Your task to perform on an android device: toggle notifications settings in the gmail app Image 0: 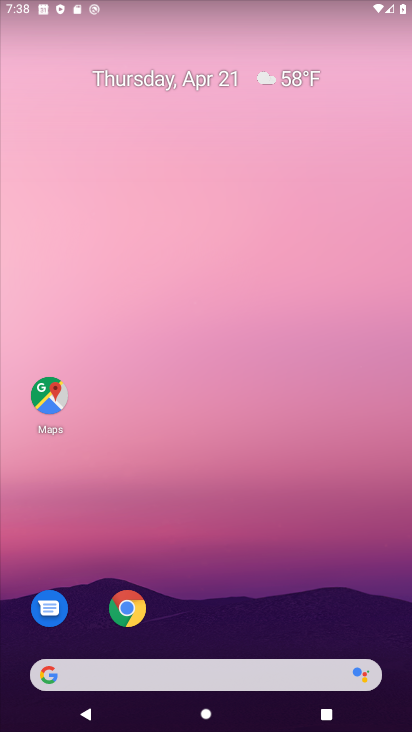
Step 0: drag from (332, 615) to (383, 90)
Your task to perform on an android device: toggle notifications settings in the gmail app Image 1: 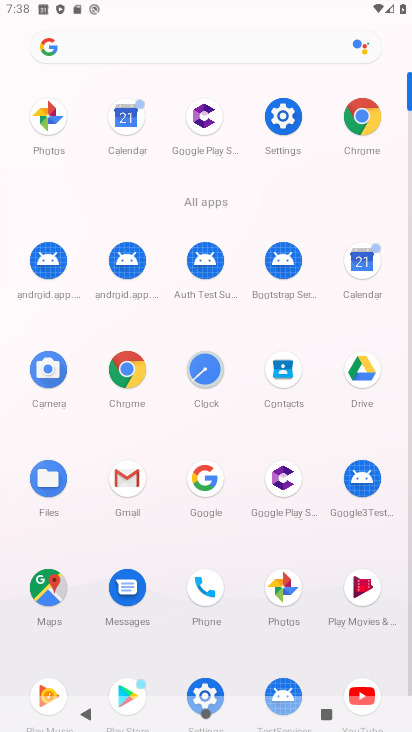
Step 1: click (129, 480)
Your task to perform on an android device: toggle notifications settings in the gmail app Image 2: 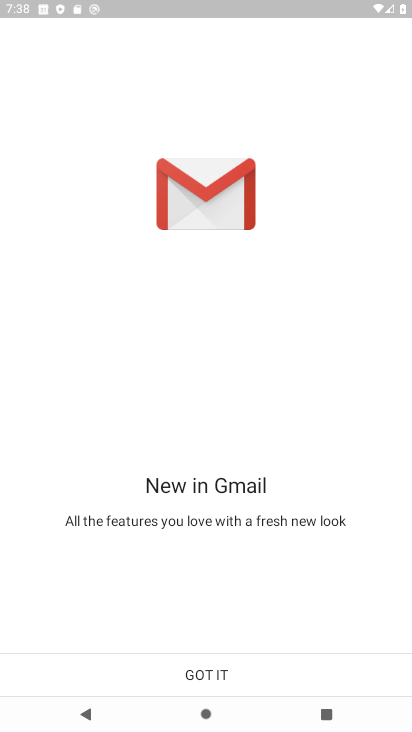
Step 2: click (292, 660)
Your task to perform on an android device: toggle notifications settings in the gmail app Image 3: 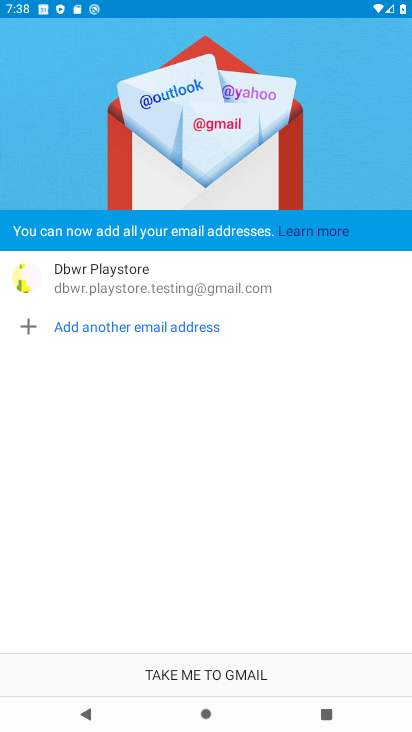
Step 3: click (295, 677)
Your task to perform on an android device: toggle notifications settings in the gmail app Image 4: 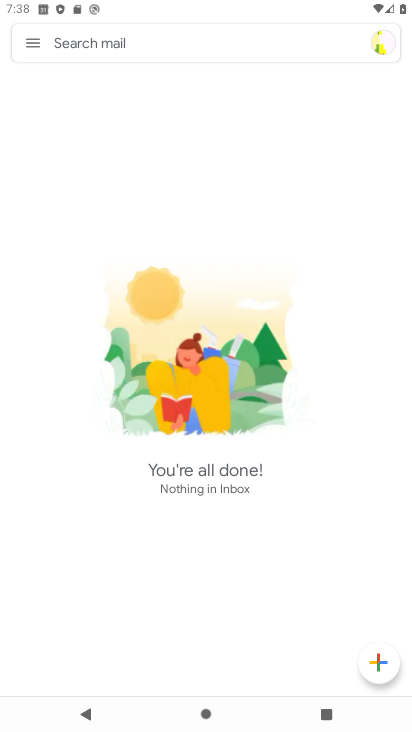
Step 4: click (35, 45)
Your task to perform on an android device: toggle notifications settings in the gmail app Image 5: 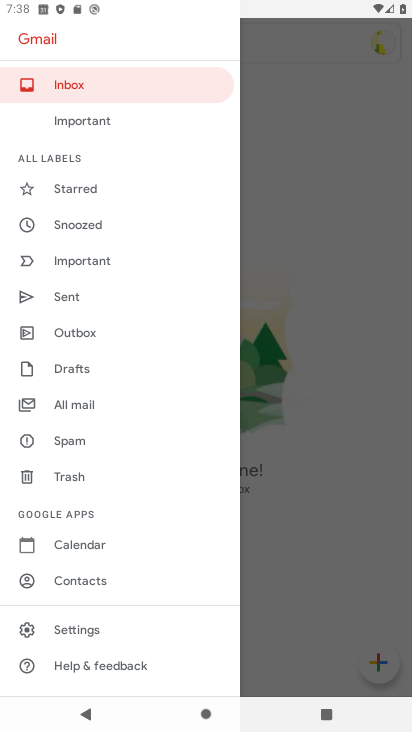
Step 5: click (88, 625)
Your task to perform on an android device: toggle notifications settings in the gmail app Image 6: 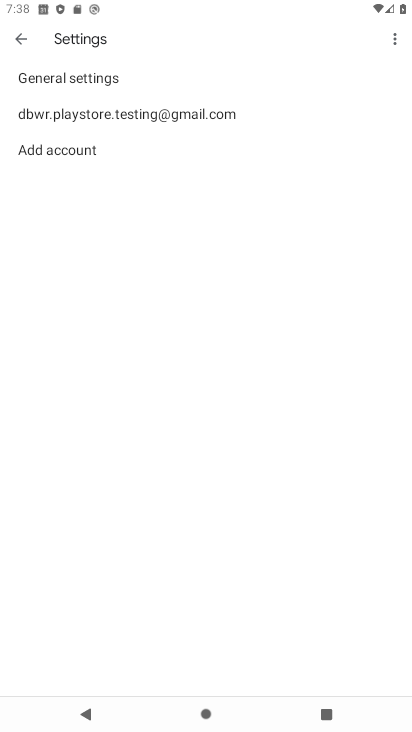
Step 6: click (165, 98)
Your task to perform on an android device: toggle notifications settings in the gmail app Image 7: 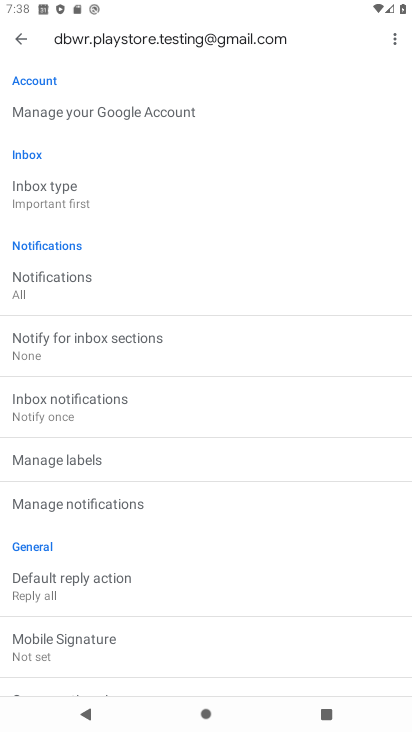
Step 7: click (113, 503)
Your task to perform on an android device: toggle notifications settings in the gmail app Image 8: 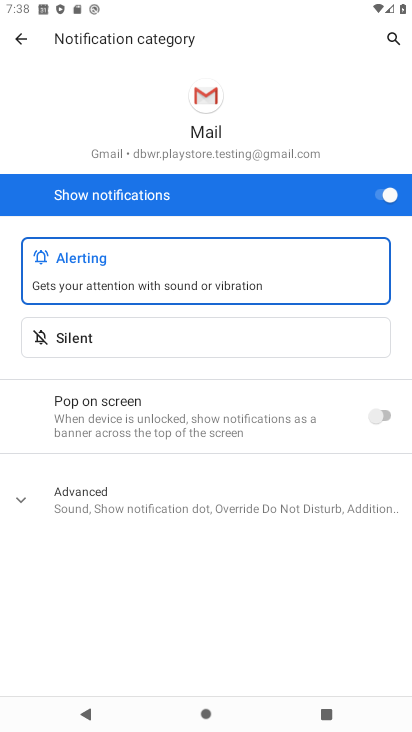
Step 8: click (377, 198)
Your task to perform on an android device: toggle notifications settings in the gmail app Image 9: 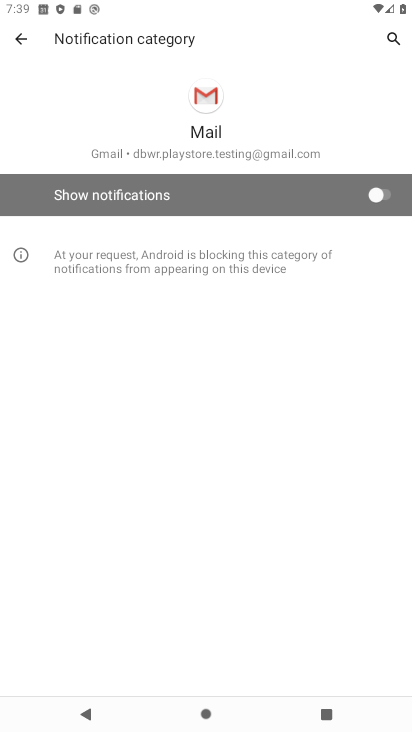
Step 9: task complete